Your task to perform on an android device: Open my contact list Image 0: 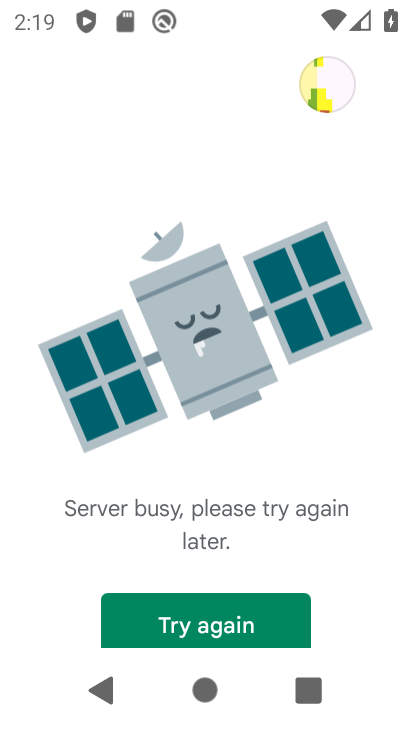
Step 0: press back button
Your task to perform on an android device: Open my contact list Image 1: 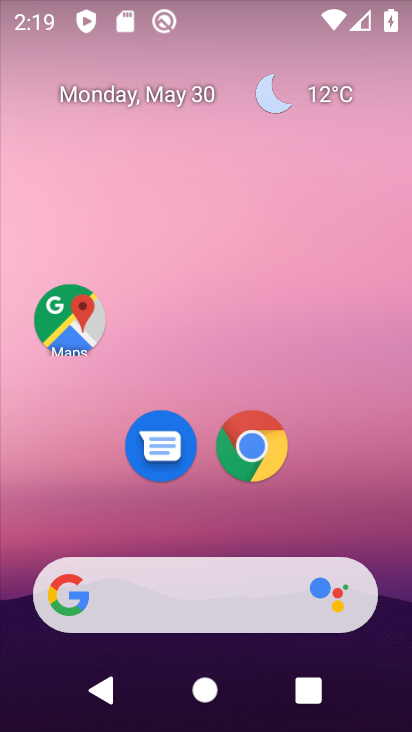
Step 1: drag from (339, 515) to (253, 198)
Your task to perform on an android device: Open my contact list Image 2: 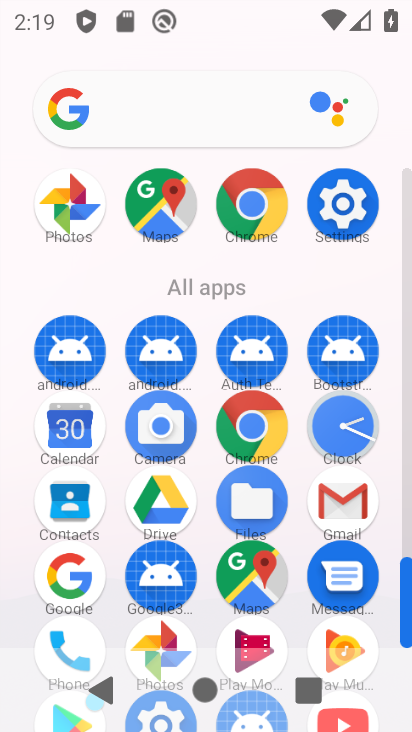
Step 2: click (70, 502)
Your task to perform on an android device: Open my contact list Image 3: 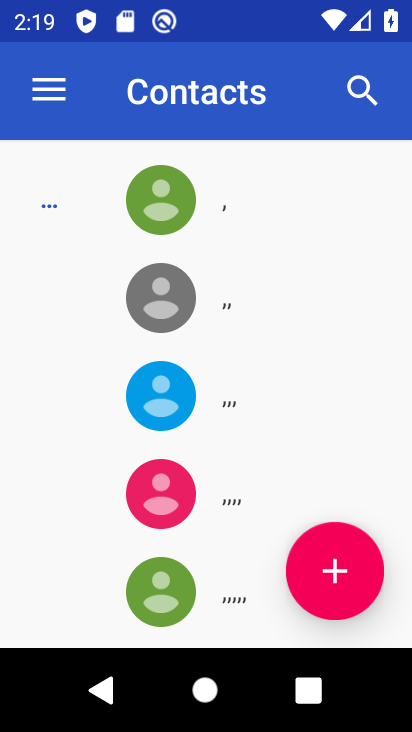
Step 3: task complete